Your task to perform on an android device: Empty the shopping cart on bestbuy. Search for "acer nitro" on bestbuy, select the first entry, and add it to the cart. Image 0: 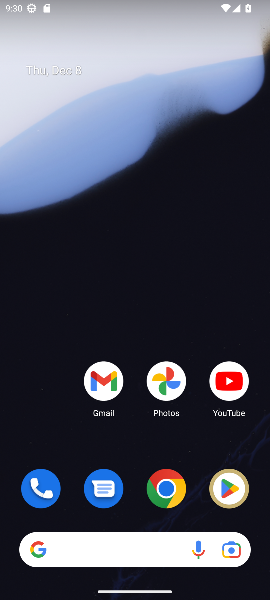
Step 0: drag from (107, 541) to (95, 199)
Your task to perform on an android device: Empty the shopping cart on bestbuy. Search for "acer nitro" on bestbuy, select the first entry, and add it to the cart. Image 1: 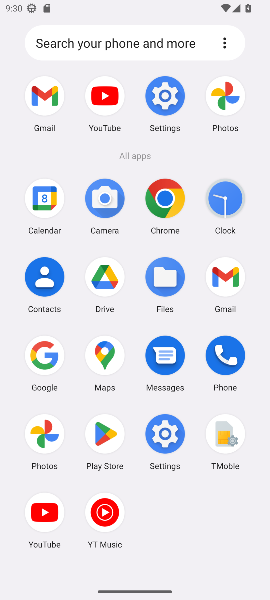
Step 1: click (44, 352)
Your task to perform on an android device: Empty the shopping cart on bestbuy. Search for "acer nitro" on bestbuy, select the first entry, and add it to the cart. Image 2: 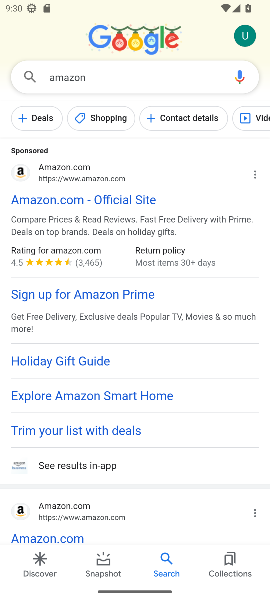
Step 2: click (66, 74)
Your task to perform on an android device: Empty the shopping cart on bestbuy. Search for "acer nitro" on bestbuy, select the first entry, and add it to the cart. Image 3: 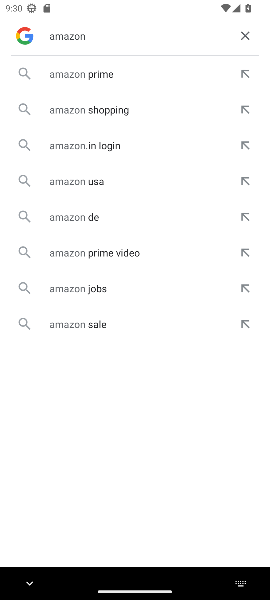
Step 3: click (250, 33)
Your task to perform on an android device: Empty the shopping cart on bestbuy. Search for "acer nitro" on bestbuy, select the first entry, and add it to the cart. Image 4: 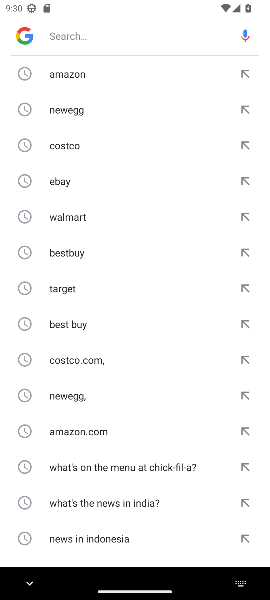
Step 4: click (64, 253)
Your task to perform on an android device: Empty the shopping cart on bestbuy. Search for "acer nitro" on bestbuy, select the first entry, and add it to the cart. Image 5: 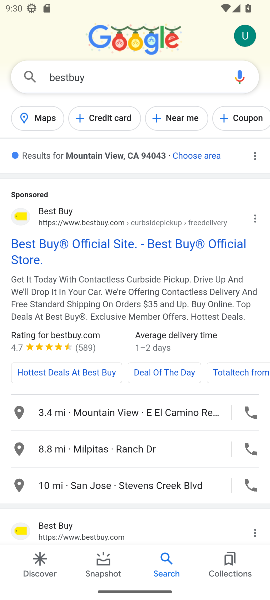
Step 5: click (43, 248)
Your task to perform on an android device: Empty the shopping cart on bestbuy. Search for "acer nitro" on bestbuy, select the first entry, and add it to the cart. Image 6: 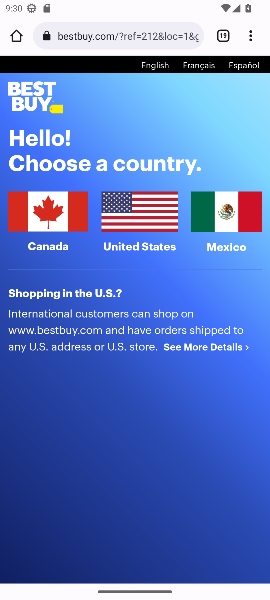
Step 6: click (130, 218)
Your task to perform on an android device: Empty the shopping cart on bestbuy. Search for "acer nitro" on bestbuy, select the first entry, and add it to the cart. Image 7: 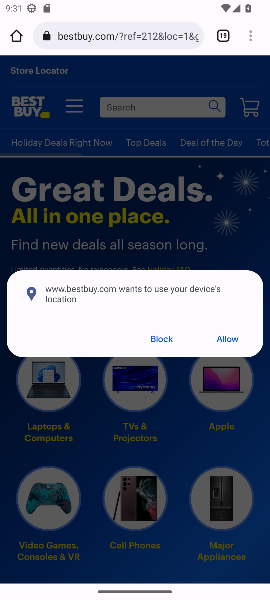
Step 7: click (232, 341)
Your task to perform on an android device: Empty the shopping cart on bestbuy. Search for "acer nitro" on bestbuy, select the first entry, and add it to the cart. Image 8: 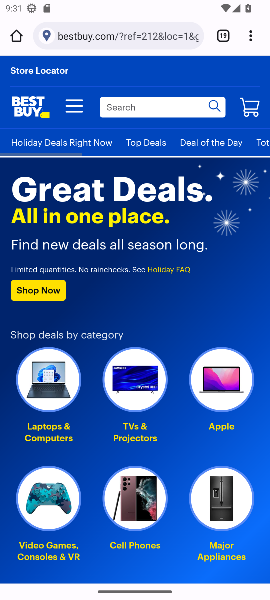
Step 8: click (123, 107)
Your task to perform on an android device: Empty the shopping cart on bestbuy. Search for "acer nitro" on bestbuy, select the first entry, and add it to the cart. Image 9: 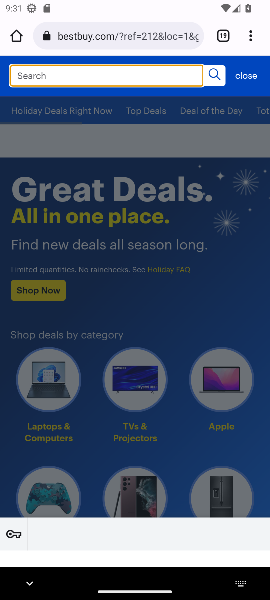
Step 9: type "acer nitro"
Your task to perform on an android device: Empty the shopping cart on bestbuy. Search for "acer nitro" on bestbuy, select the first entry, and add it to the cart. Image 10: 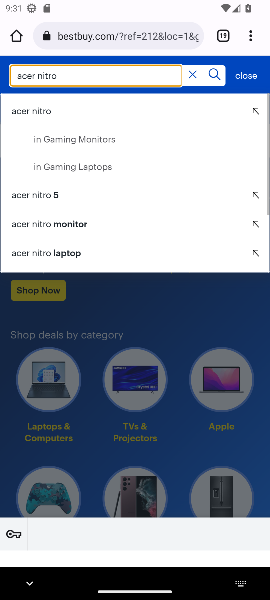
Step 10: click (20, 117)
Your task to perform on an android device: Empty the shopping cart on bestbuy. Search for "acer nitro" on bestbuy, select the first entry, and add it to the cart. Image 11: 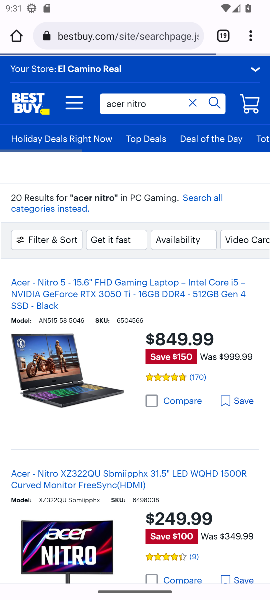
Step 11: drag from (185, 446) to (185, 182)
Your task to perform on an android device: Empty the shopping cart on bestbuy. Search for "acer nitro" on bestbuy, select the first entry, and add it to the cart. Image 12: 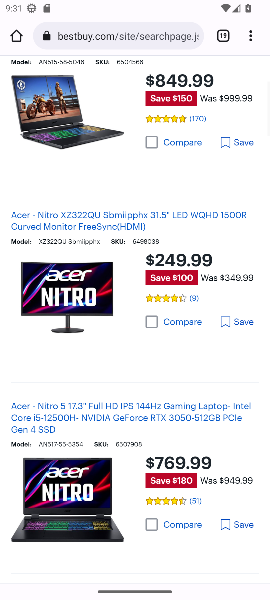
Step 12: click (55, 99)
Your task to perform on an android device: Empty the shopping cart on bestbuy. Search for "acer nitro" on bestbuy, select the first entry, and add it to the cart. Image 13: 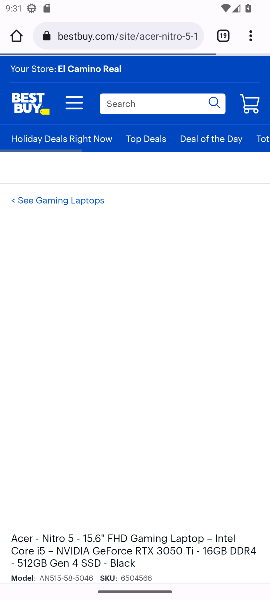
Step 13: click (208, 142)
Your task to perform on an android device: Empty the shopping cart on bestbuy. Search for "acer nitro" on bestbuy, select the first entry, and add it to the cart. Image 14: 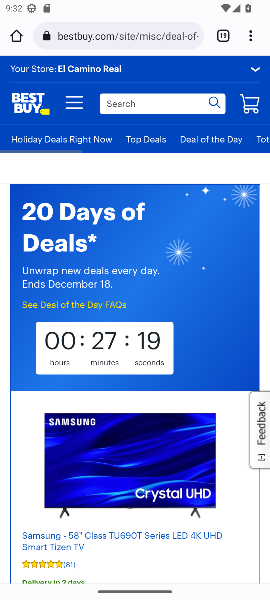
Step 14: click (140, 101)
Your task to perform on an android device: Empty the shopping cart on bestbuy. Search for "acer nitro" on bestbuy, select the first entry, and add it to the cart. Image 15: 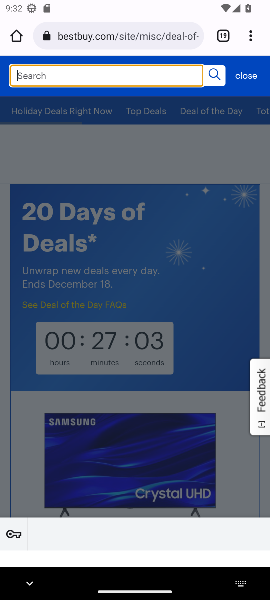
Step 15: type "acer nitro"
Your task to perform on an android device: Empty the shopping cart on bestbuy. Search for "acer nitro" on bestbuy, select the first entry, and add it to the cart. Image 16: 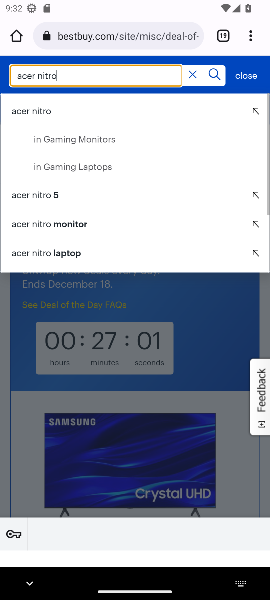
Step 16: click (12, 106)
Your task to perform on an android device: Empty the shopping cart on bestbuy. Search for "acer nitro" on bestbuy, select the first entry, and add it to the cart. Image 17: 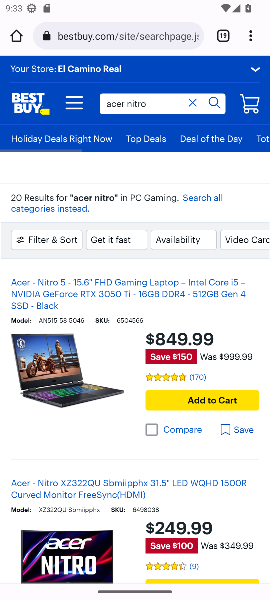
Step 17: click (69, 368)
Your task to perform on an android device: Empty the shopping cart on bestbuy. Search for "acer nitro" on bestbuy, select the first entry, and add it to the cart. Image 18: 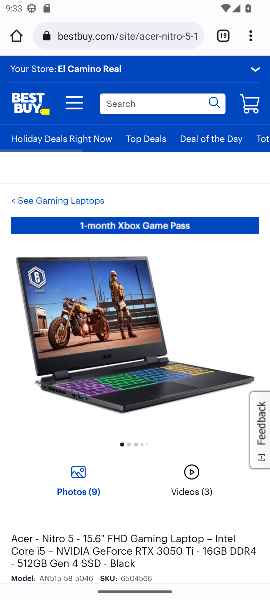
Step 18: drag from (126, 575) to (113, 270)
Your task to perform on an android device: Empty the shopping cart on bestbuy. Search for "acer nitro" on bestbuy, select the first entry, and add it to the cart. Image 19: 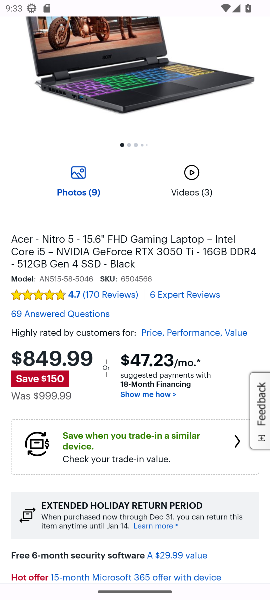
Step 19: drag from (127, 490) to (115, 295)
Your task to perform on an android device: Empty the shopping cart on bestbuy. Search for "acer nitro" on bestbuy, select the first entry, and add it to the cart. Image 20: 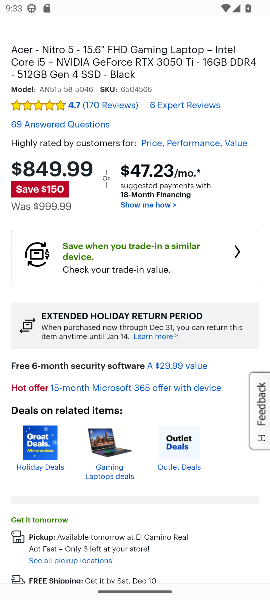
Step 20: drag from (86, 524) to (70, 240)
Your task to perform on an android device: Empty the shopping cart on bestbuy. Search for "acer nitro" on bestbuy, select the first entry, and add it to the cart. Image 21: 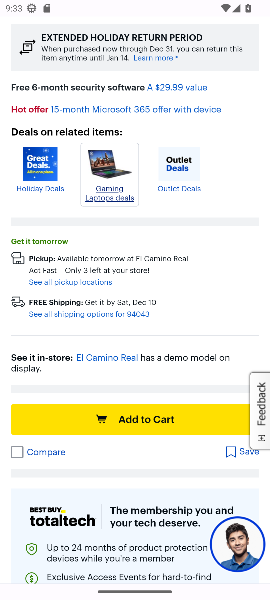
Step 21: click (130, 420)
Your task to perform on an android device: Empty the shopping cart on bestbuy. Search for "acer nitro" on bestbuy, select the first entry, and add it to the cart. Image 22: 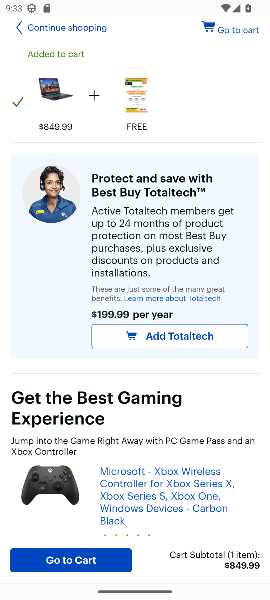
Step 22: drag from (154, 416) to (141, 205)
Your task to perform on an android device: Empty the shopping cart on bestbuy. Search for "acer nitro" on bestbuy, select the first entry, and add it to the cart. Image 23: 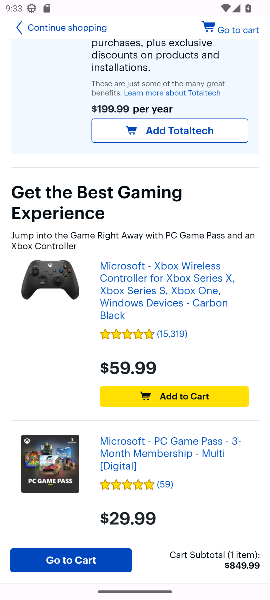
Step 23: click (31, 563)
Your task to perform on an android device: Empty the shopping cart on bestbuy. Search for "acer nitro" on bestbuy, select the first entry, and add it to the cart. Image 24: 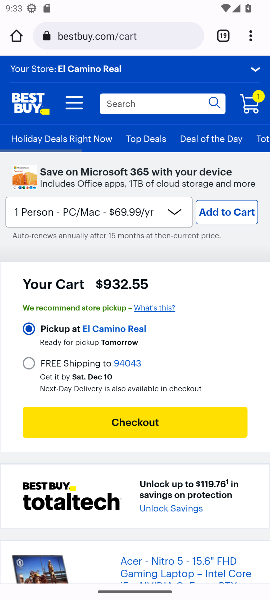
Step 24: click (122, 425)
Your task to perform on an android device: Empty the shopping cart on bestbuy. Search for "acer nitro" on bestbuy, select the first entry, and add it to the cart. Image 25: 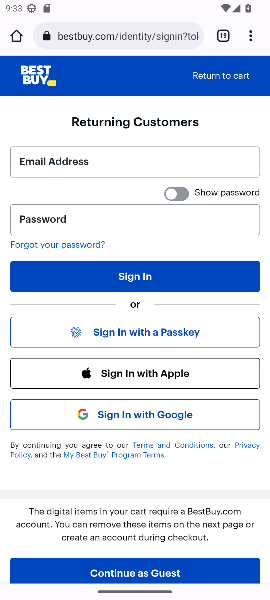
Step 25: task complete